Your task to perform on an android device: set default search engine in the chrome app Image 0: 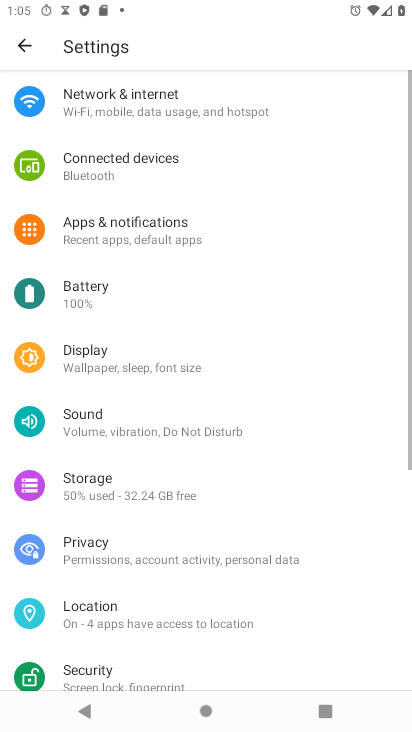
Step 0: press home button
Your task to perform on an android device: set default search engine in the chrome app Image 1: 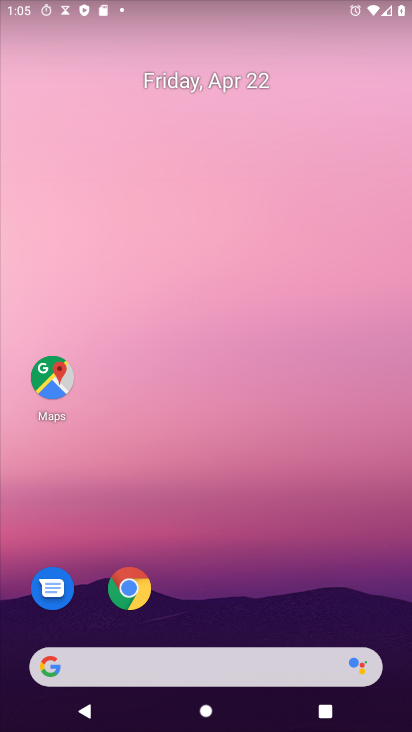
Step 1: drag from (278, 698) to (273, 152)
Your task to perform on an android device: set default search engine in the chrome app Image 2: 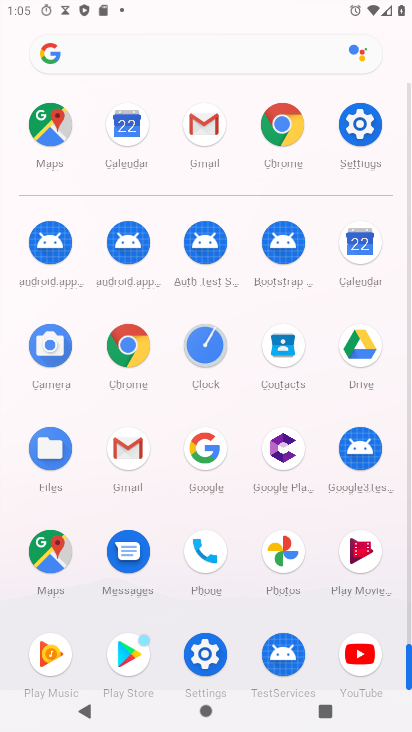
Step 2: click (291, 130)
Your task to perform on an android device: set default search engine in the chrome app Image 3: 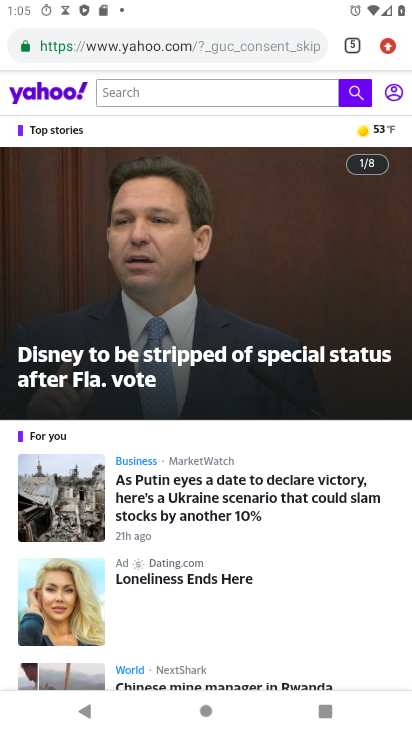
Step 3: click (387, 50)
Your task to perform on an android device: set default search engine in the chrome app Image 4: 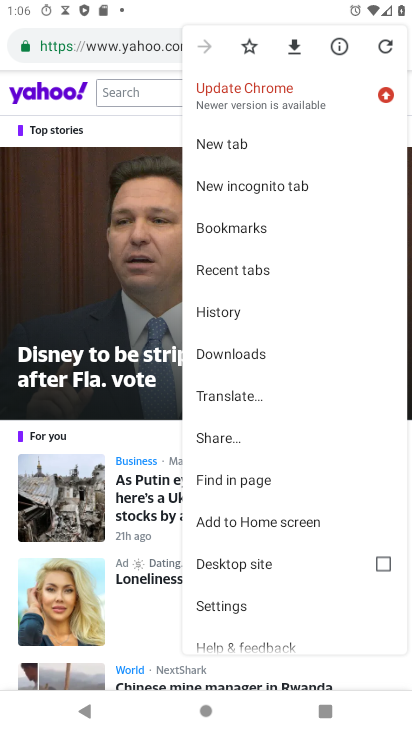
Step 4: click (227, 597)
Your task to perform on an android device: set default search engine in the chrome app Image 5: 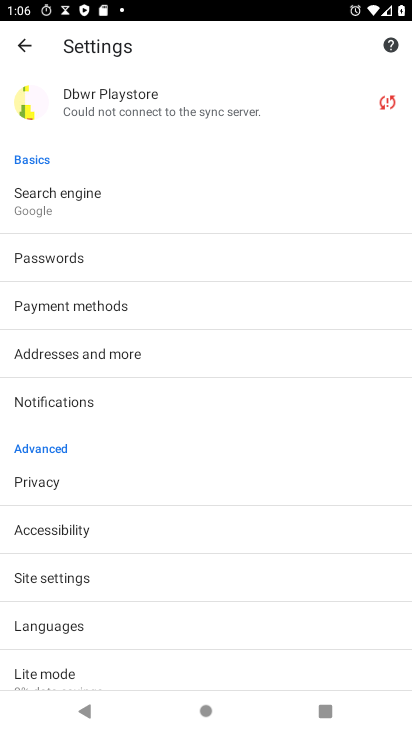
Step 5: click (121, 194)
Your task to perform on an android device: set default search engine in the chrome app Image 6: 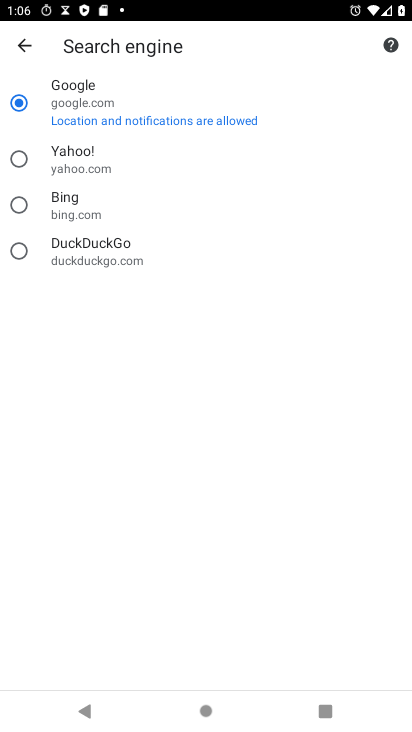
Step 6: task complete